Your task to perform on an android device: turn off sleep mode Image 0: 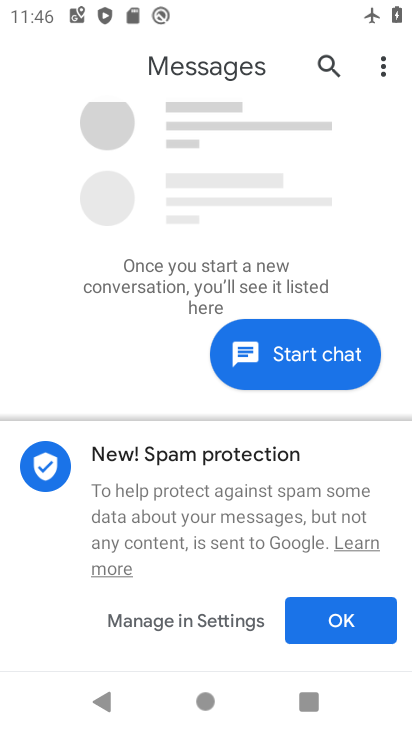
Step 0: press home button
Your task to perform on an android device: turn off sleep mode Image 1: 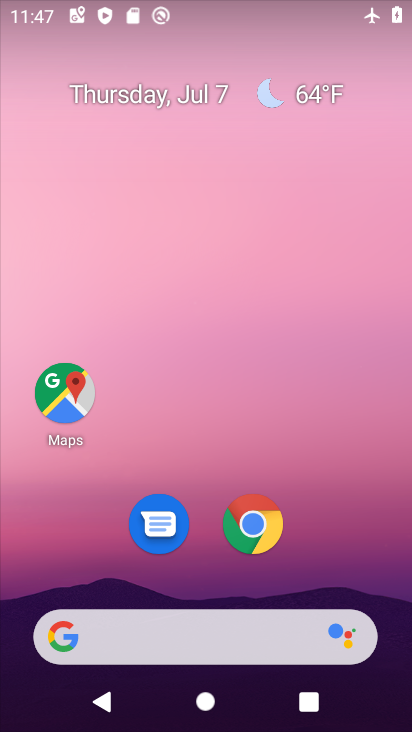
Step 1: drag from (310, 520) to (329, 30)
Your task to perform on an android device: turn off sleep mode Image 2: 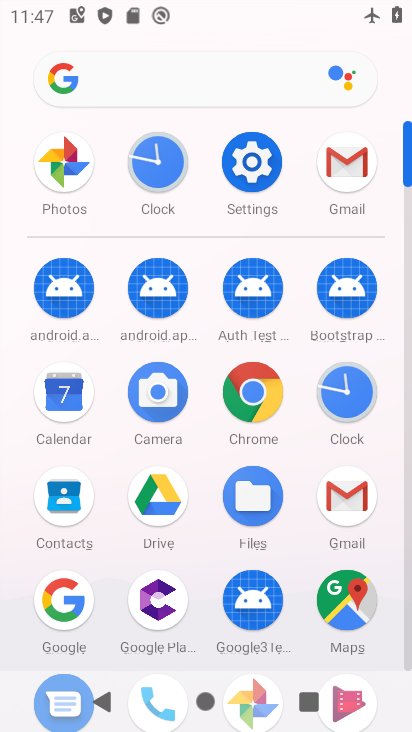
Step 2: click (254, 162)
Your task to perform on an android device: turn off sleep mode Image 3: 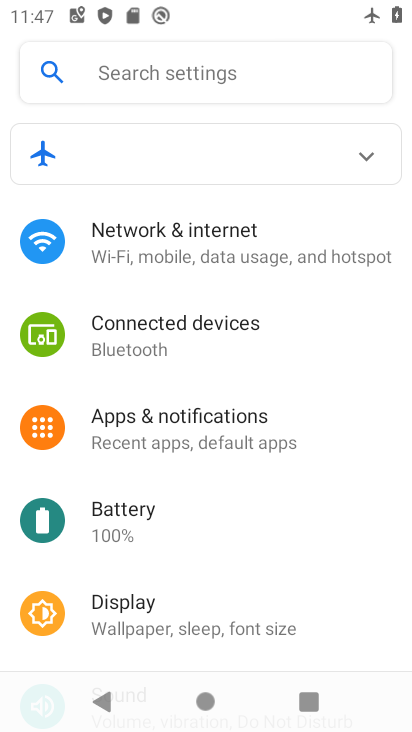
Step 3: drag from (213, 510) to (252, 82)
Your task to perform on an android device: turn off sleep mode Image 4: 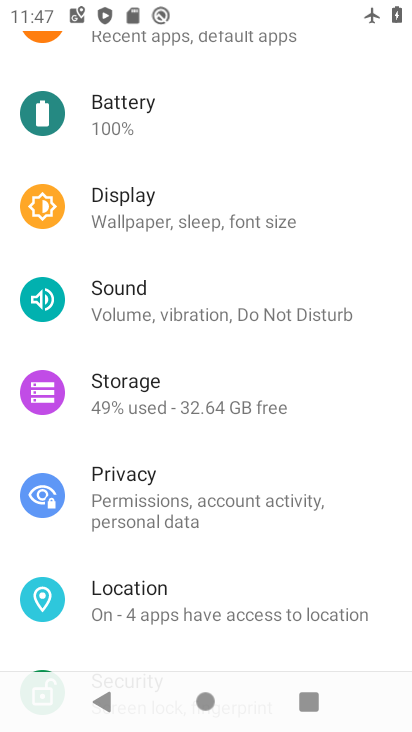
Step 4: click (217, 206)
Your task to perform on an android device: turn off sleep mode Image 5: 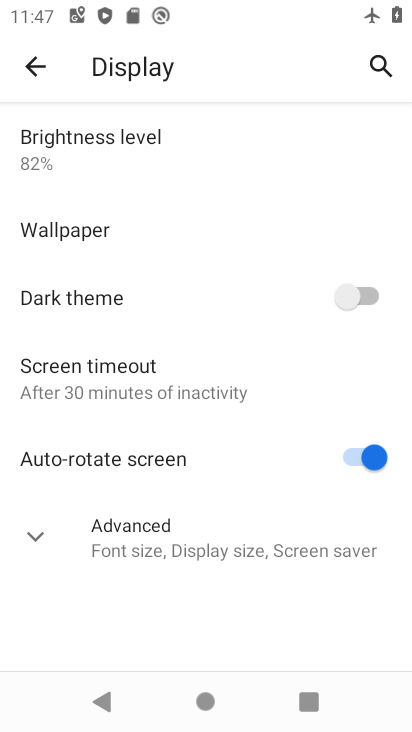
Step 5: click (33, 531)
Your task to perform on an android device: turn off sleep mode Image 6: 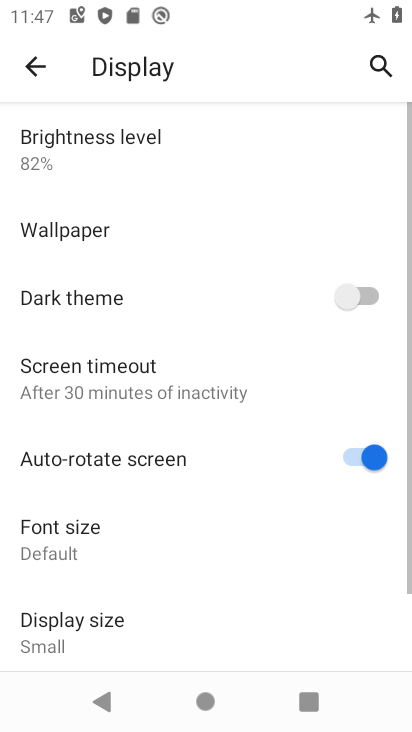
Step 6: task complete